Your task to perform on an android device: turn on location history Image 0: 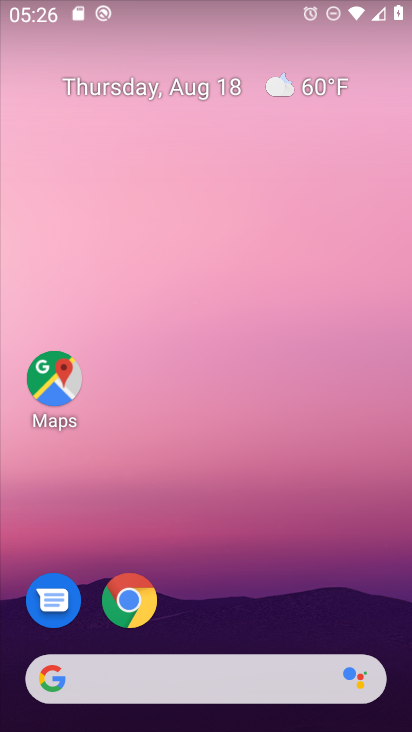
Step 0: drag from (230, 648) to (263, 106)
Your task to perform on an android device: turn on location history Image 1: 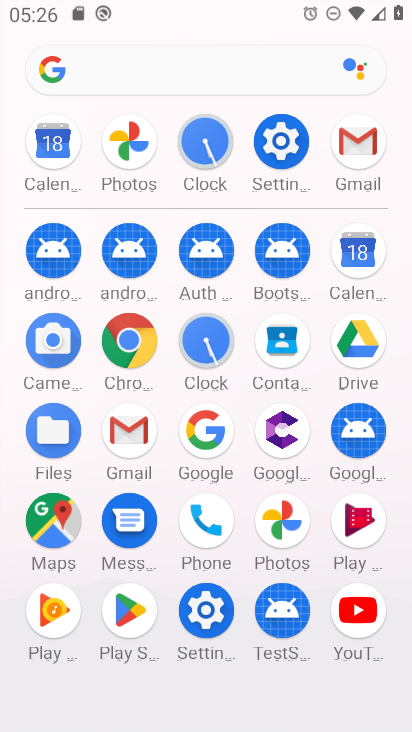
Step 1: click (277, 158)
Your task to perform on an android device: turn on location history Image 2: 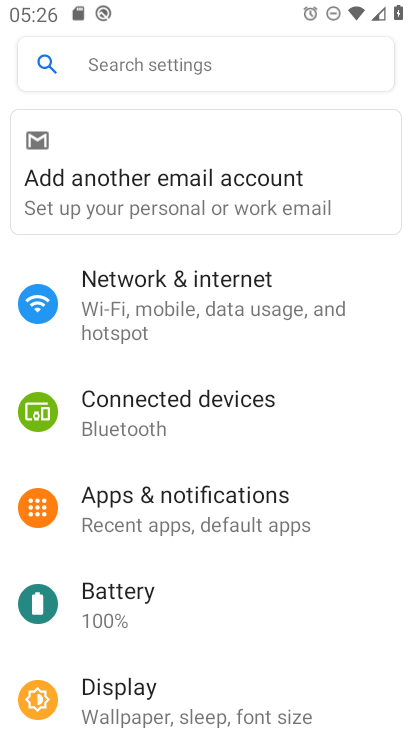
Step 2: drag from (259, 621) to (241, 169)
Your task to perform on an android device: turn on location history Image 3: 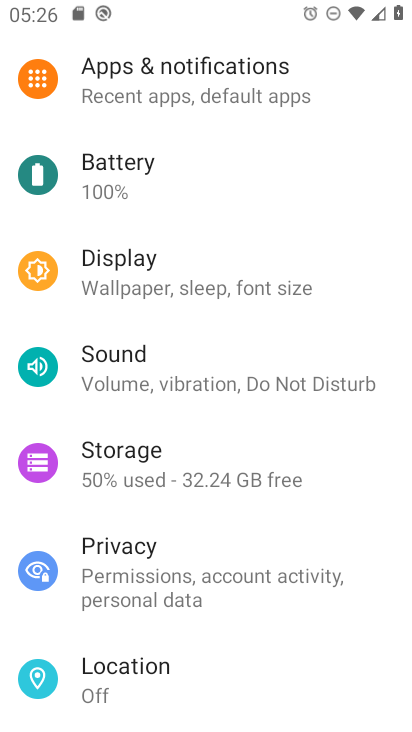
Step 3: click (114, 678)
Your task to perform on an android device: turn on location history Image 4: 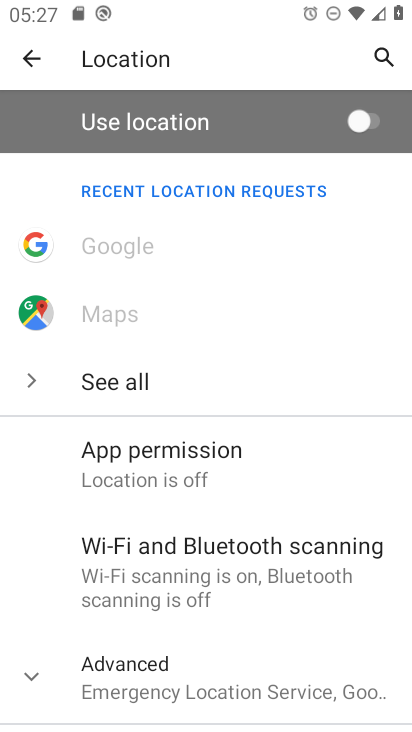
Step 4: click (144, 692)
Your task to perform on an android device: turn on location history Image 5: 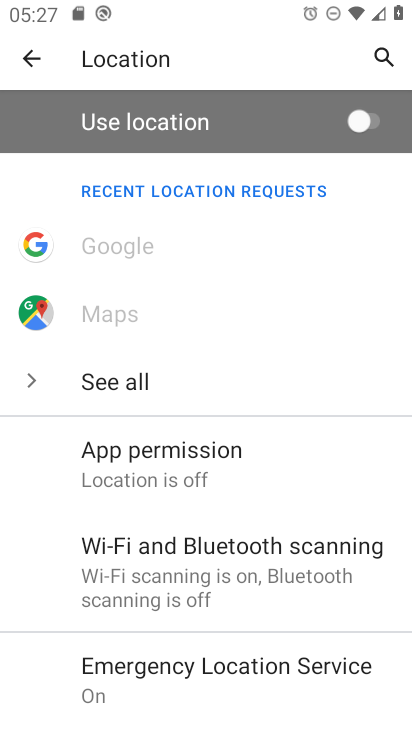
Step 5: drag from (291, 688) to (304, 189)
Your task to perform on an android device: turn on location history Image 6: 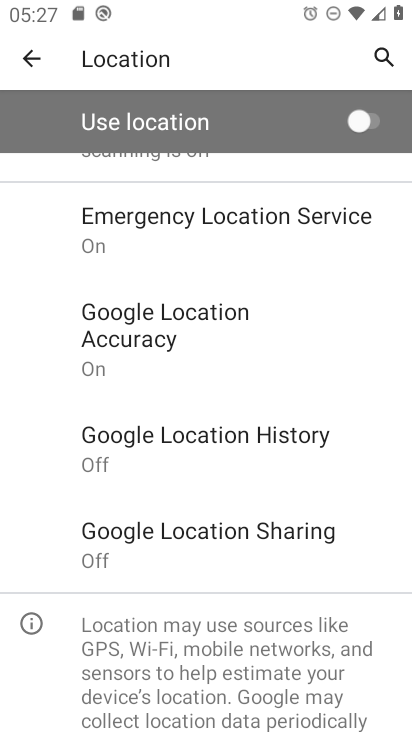
Step 6: click (223, 439)
Your task to perform on an android device: turn on location history Image 7: 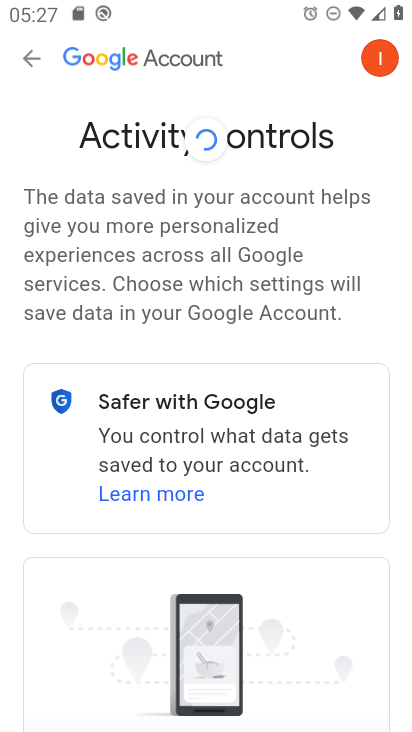
Step 7: drag from (330, 614) to (305, 79)
Your task to perform on an android device: turn on location history Image 8: 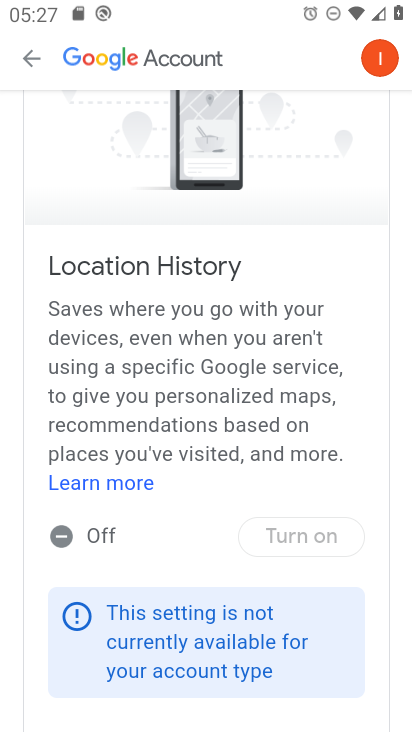
Step 8: click (280, 541)
Your task to perform on an android device: turn on location history Image 9: 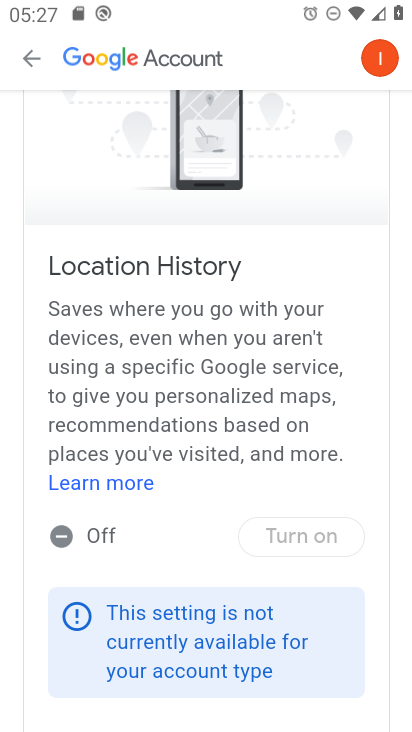
Step 9: task complete